Your task to perform on an android device: turn on location history Image 0: 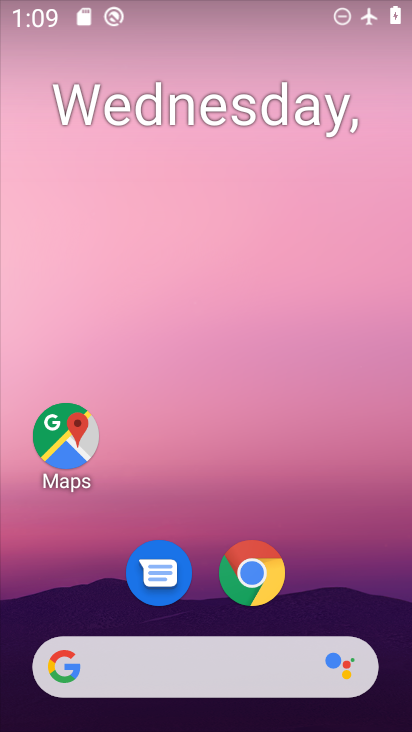
Step 0: drag from (197, 599) to (311, 24)
Your task to perform on an android device: turn on location history Image 1: 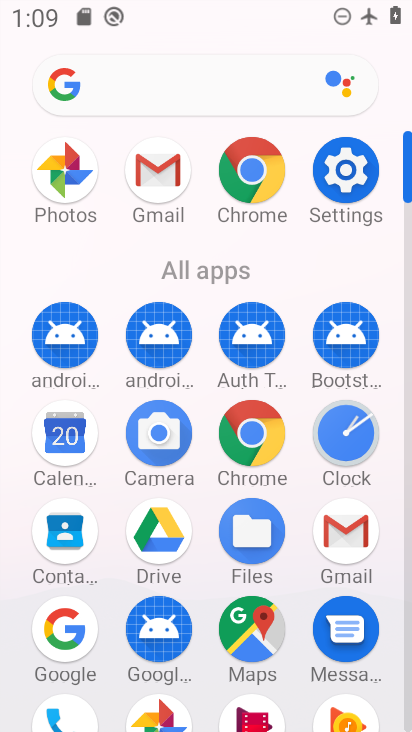
Step 1: click (346, 182)
Your task to perform on an android device: turn on location history Image 2: 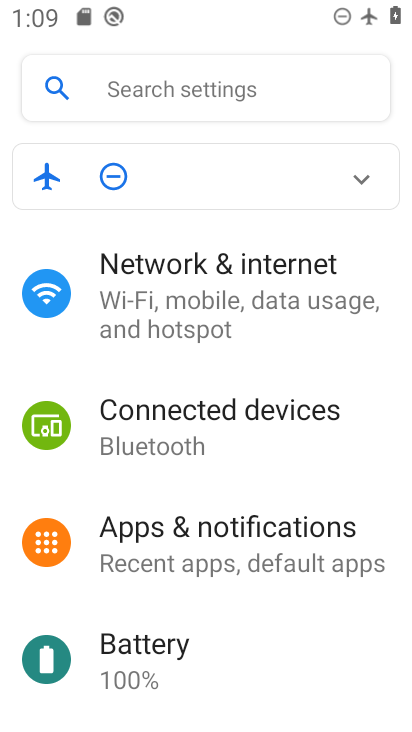
Step 2: drag from (217, 634) to (319, 41)
Your task to perform on an android device: turn on location history Image 3: 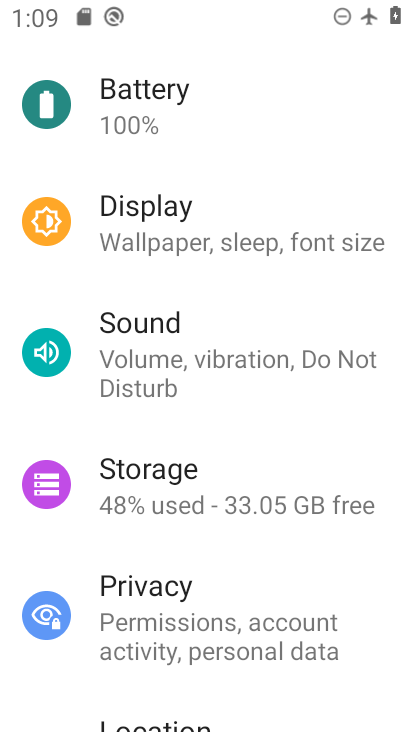
Step 3: drag from (197, 590) to (277, 202)
Your task to perform on an android device: turn on location history Image 4: 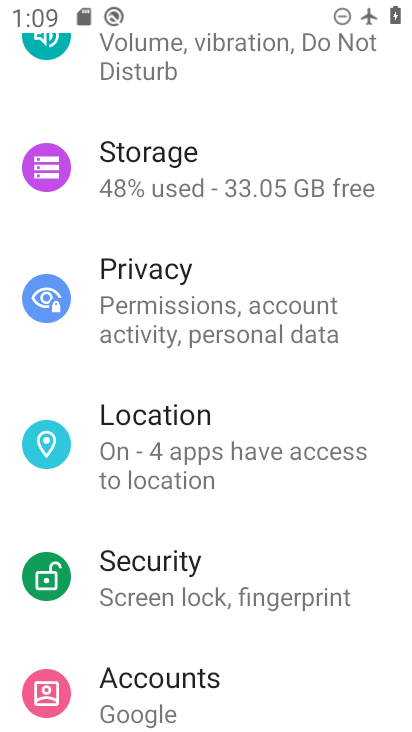
Step 4: click (194, 460)
Your task to perform on an android device: turn on location history Image 5: 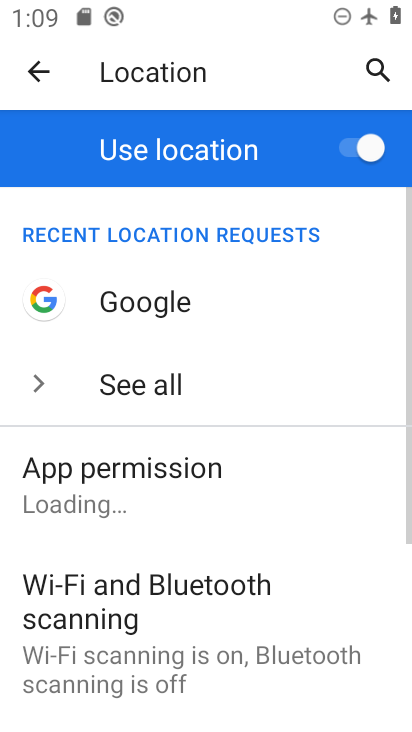
Step 5: drag from (185, 538) to (290, 161)
Your task to perform on an android device: turn on location history Image 6: 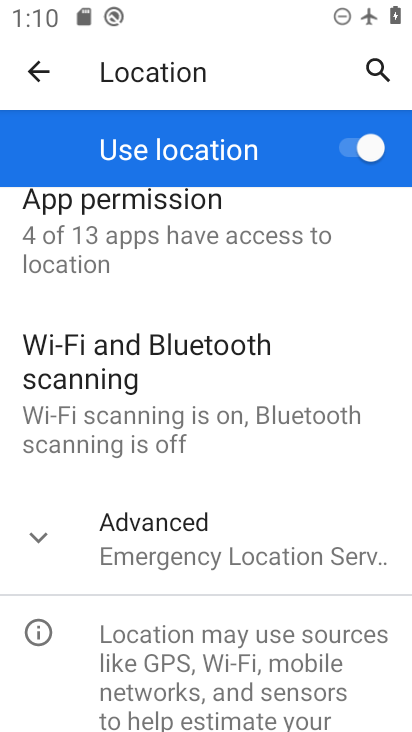
Step 6: click (201, 562)
Your task to perform on an android device: turn on location history Image 7: 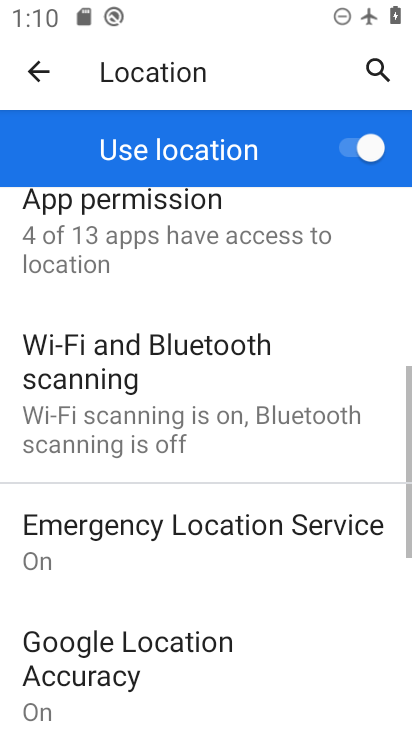
Step 7: drag from (196, 583) to (320, 138)
Your task to perform on an android device: turn on location history Image 8: 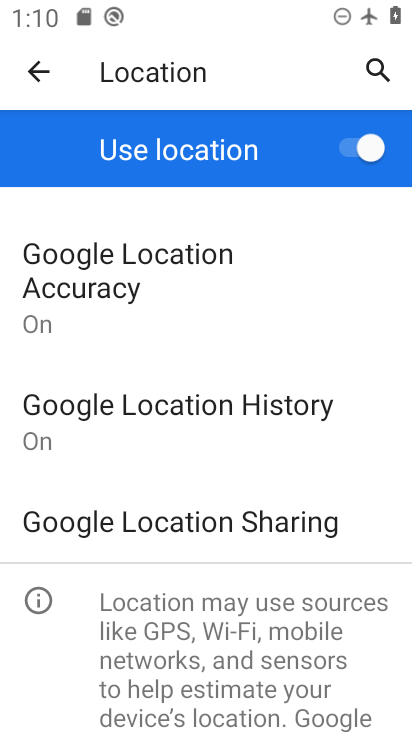
Step 8: click (225, 425)
Your task to perform on an android device: turn on location history Image 9: 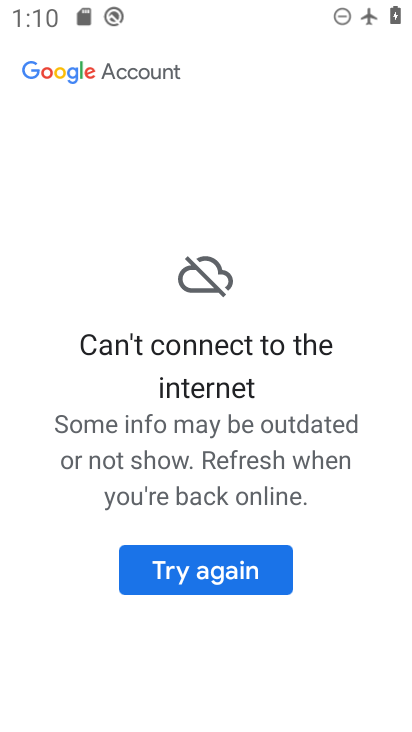
Step 9: click (223, 573)
Your task to perform on an android device: turn on location history Image 10: 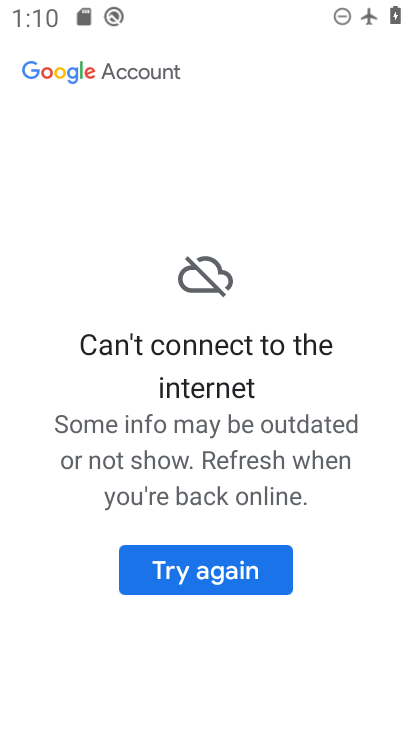
Step 10: task complete